Your task to perform on an android device: Open privacy settings Image 0: 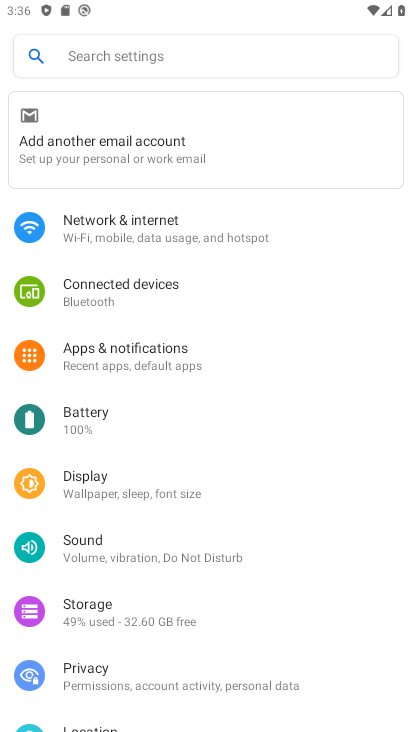
Step 0: click (82, 672)
Your task to perform on an android device: Open privacy settings Image 1: 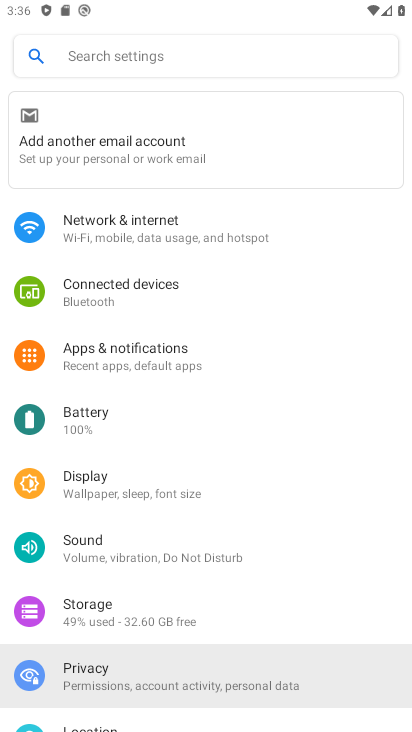
Step 1: click (82, 672)
Your task to perform on an android device: Open privacy settings Image 2: 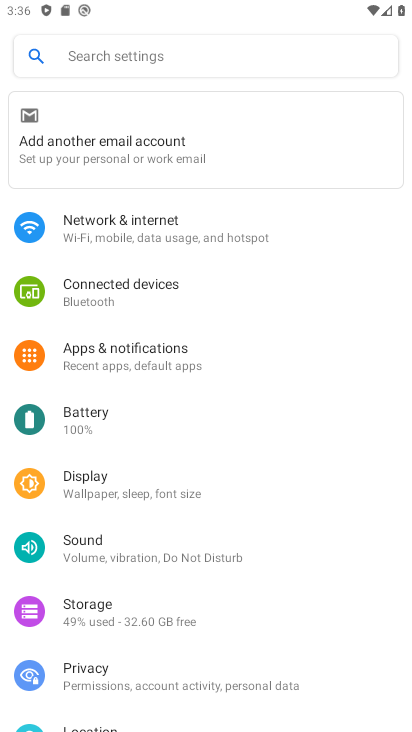
Step 2: click (82, 672)
Your task to perform on an android device: Open privacy settings Image 3: 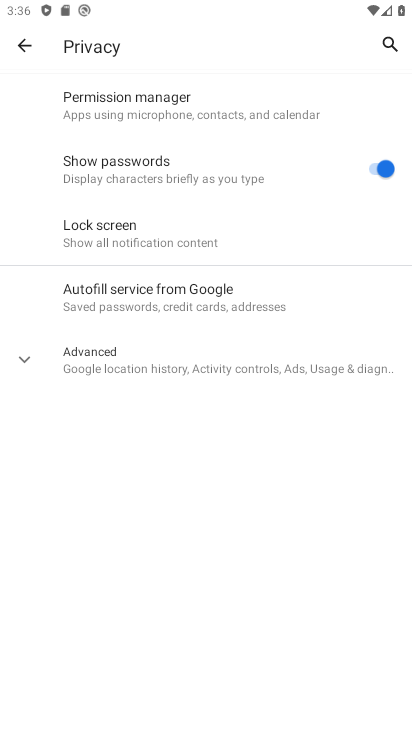
Step 3: task complete